Your task to perform on an android device: turn on showing notifications on the lock screen Image 0: 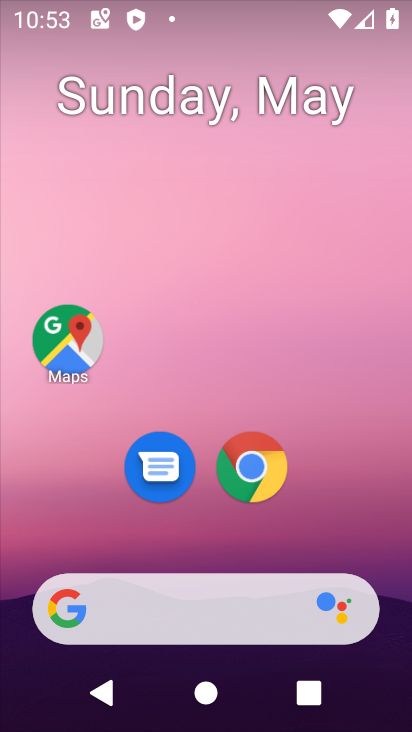
Step 0: drag from (359, 559) to (377, 4)
Your task to perform on an android device: turn on showing notifications on the lock screen Image 1: 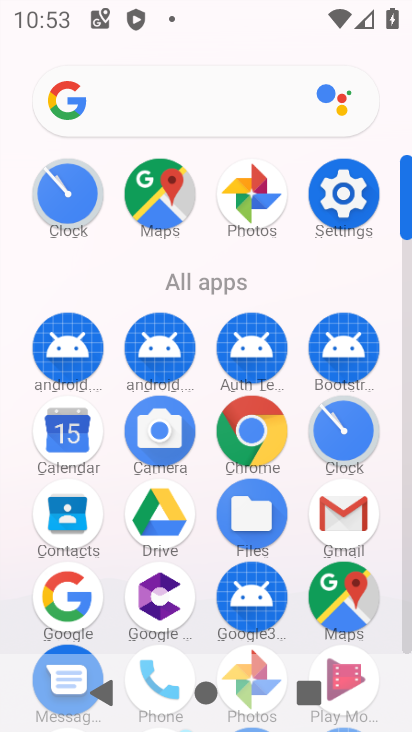
Step 1: click (345, 189)
Your task to perform on an android device: turn on showing notifications on the lock screen Image 2: 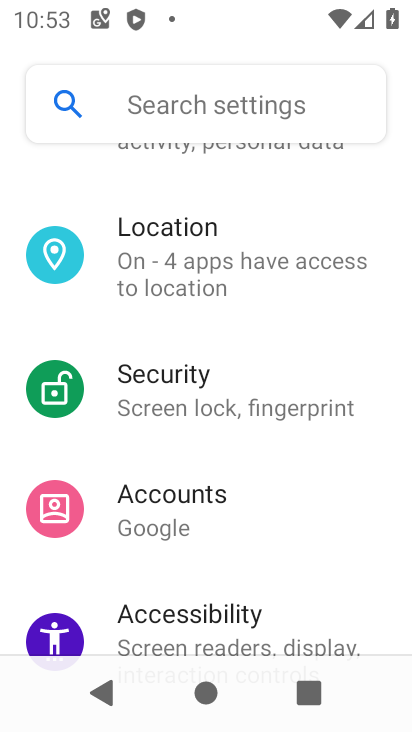
Step 2: drag from (256, 520) to (257, 205)
Your task to perform on an android device: turn on showing notifications on the lock screen Image 3: 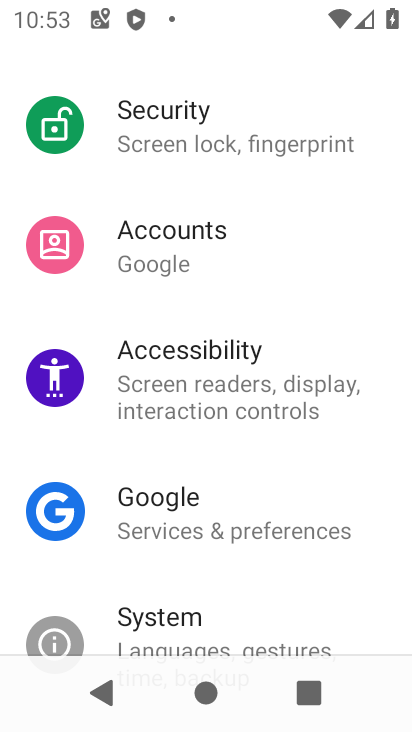
Step 3: drag from (315, 276) to (293, 596)
Your task to perform on an android device: turn on showing notifications on the lock screen Image 4: 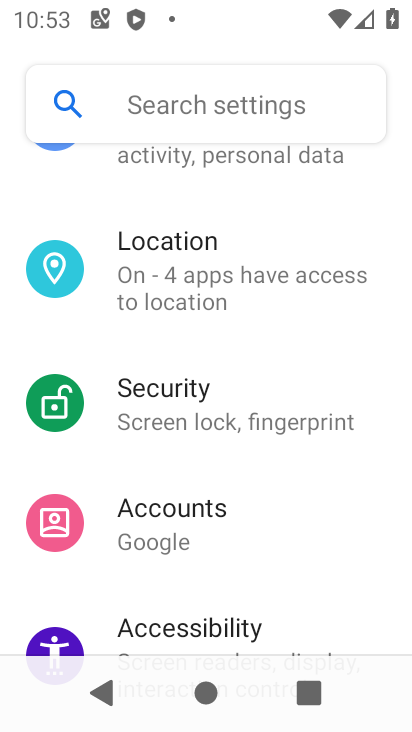
Step 4: drag from (313, 229) to (300, 580)
Your task to perform on an android device: turn on showing notifications on the lock screen Image 5: 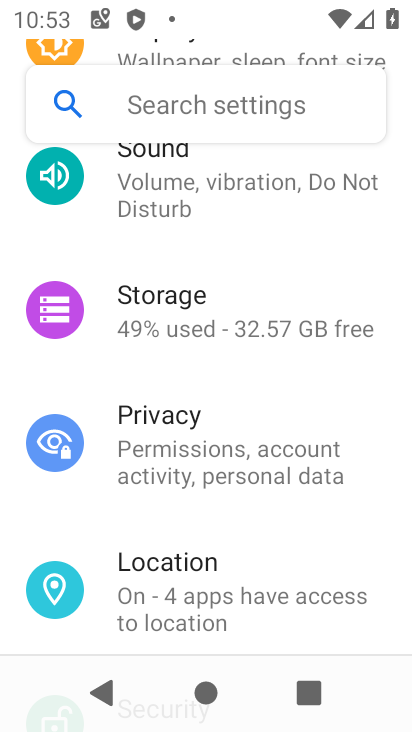
Step 5: drag from (369, 262) to (344, 551)
Your task to perform on an android device: turn on showing notifications on the lock screen Image 6: 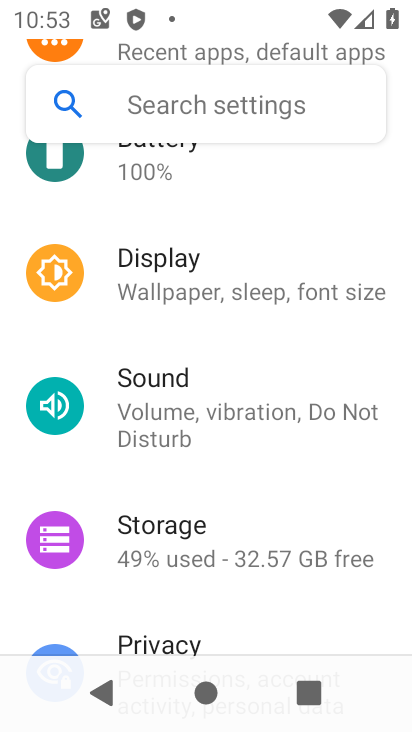
Step 6: drag from (379, 266) to (352, 559)
Your task to perform on an android device: turn on showing notifications on the lock screen Image 7: 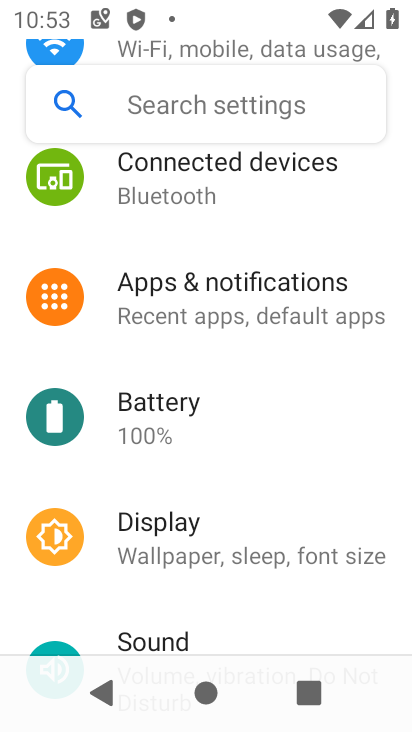
Step 7: click (199, 303)
Your task to perform on an android device: turn on showing notifications on the lock screen Image 8: 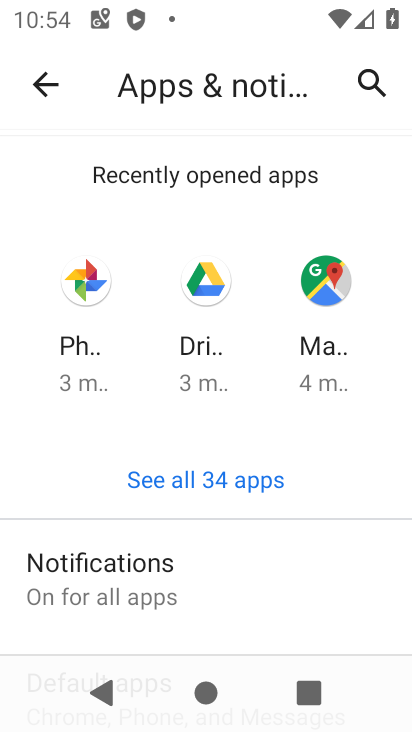
Step 8: click (86, 568)
Your task to perform on an android device: turn on showing notifications on the lock screen Image 9: 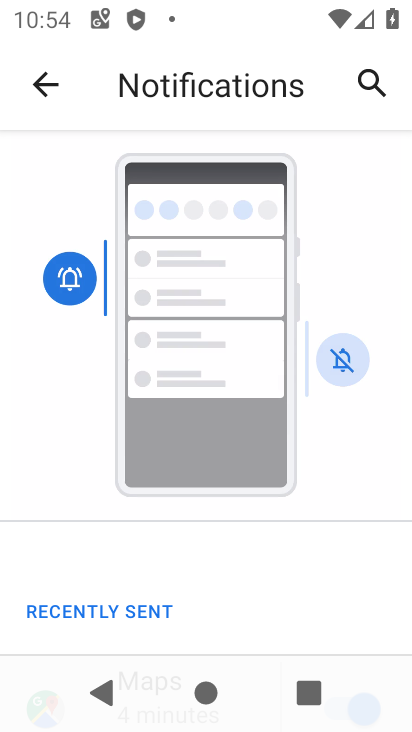
Step 9: drag from (198, 597) to (207, 245)
Your task to perform on an android device: turn on showing notifications on the lock screen Image 10: 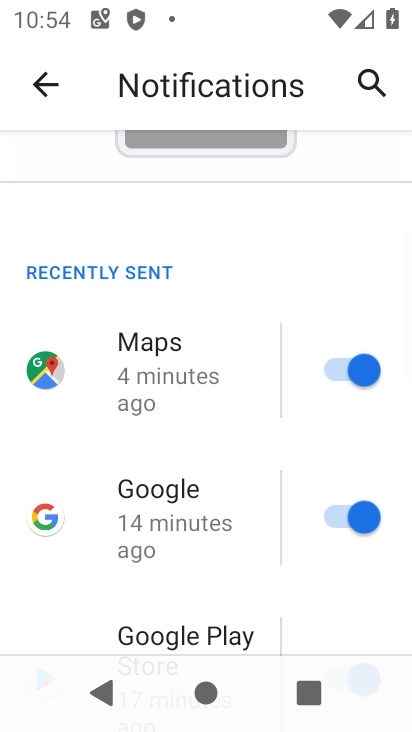
Step 10: drag from (187, 551) to (171, 218)
Your task to perform on an android device: turn on showing notifications on the lock screen Image 11: 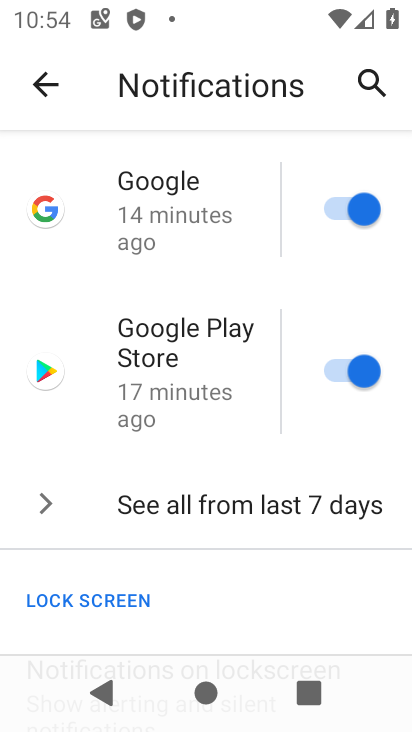
Step 11: drag from (158, 542) to (152, 284)
Your task to perform on an android device: turn on showing notifications on the lock screen Image 12: 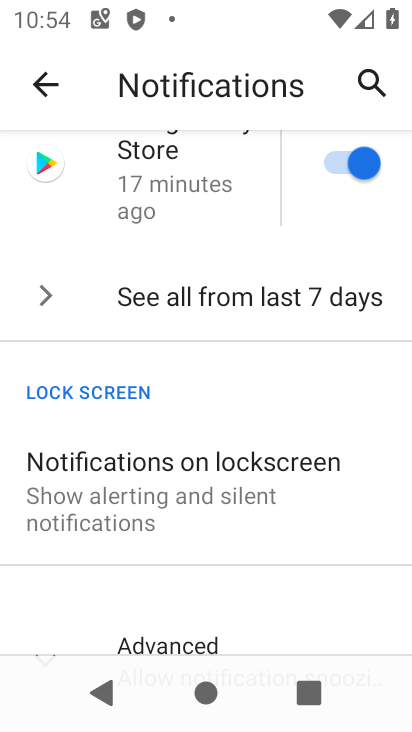
Step 12: click (115, 464)
Your task to perform on an android device: turn on showing notifications on the lock screen Image 13: 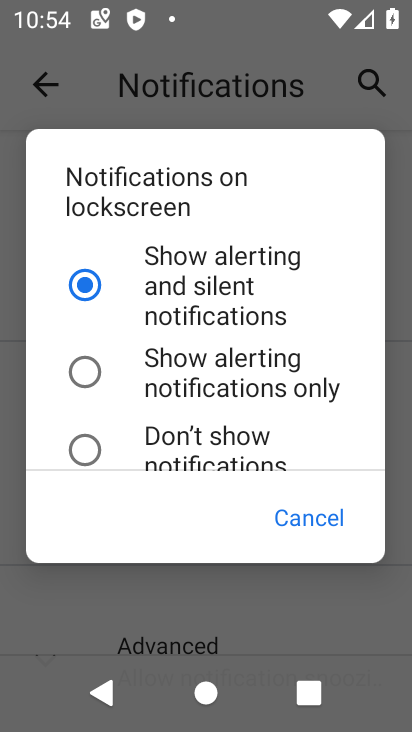
Step 13: task complete